Your task to perform on an android device: Do I have any events today? Image 0: 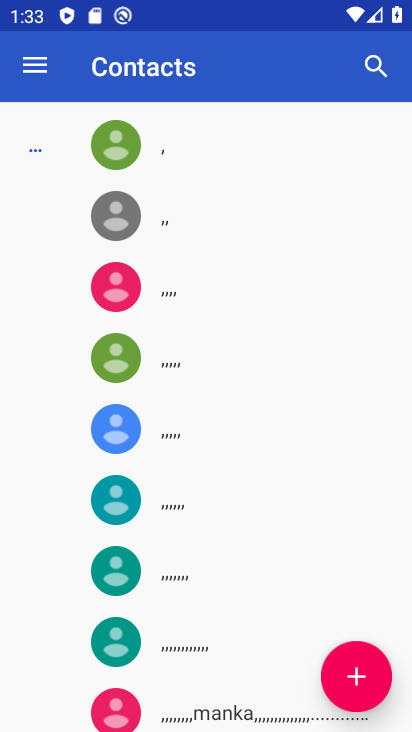
Step 0: press home button
Your task to perform on an android device: Do I have any events today? Image 1: 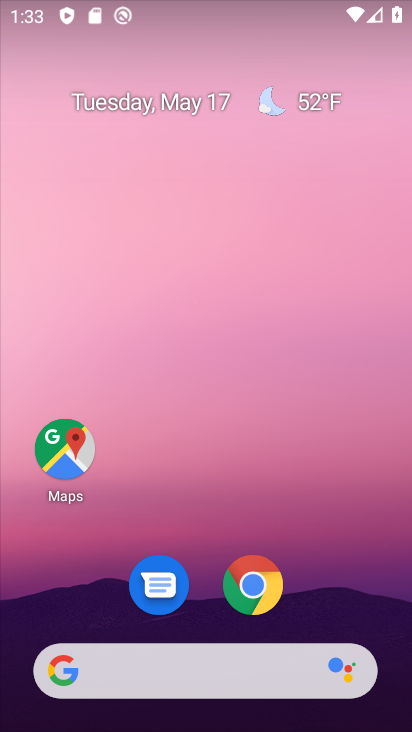
Step 1: drag from (250, 493) to (234, 37)
Your task to perform on an android device: Do I have any events today? Image 2: 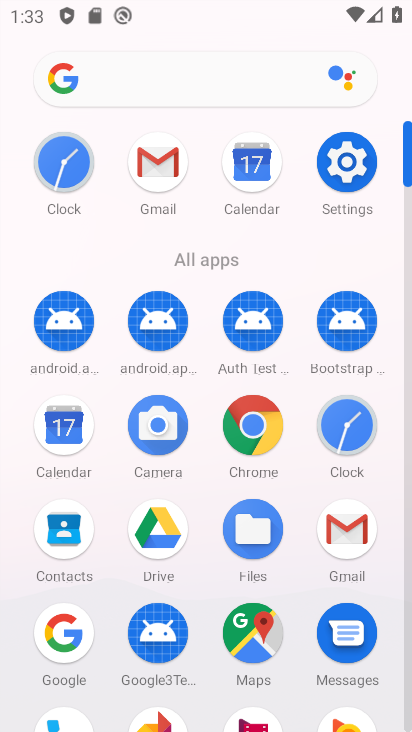
Step 2: click (257, 166)
Your task to perform on an android device: Do I have any events today? Image 3: 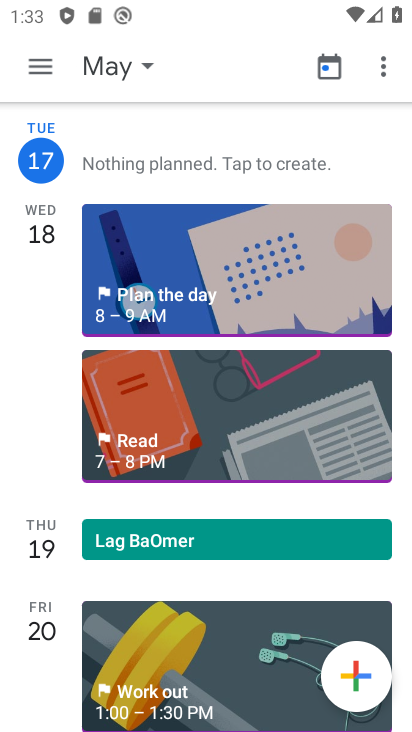
Step 3: task complete